Your task to perform on an android device: turn vacation reply on in the gmail app Image 0: 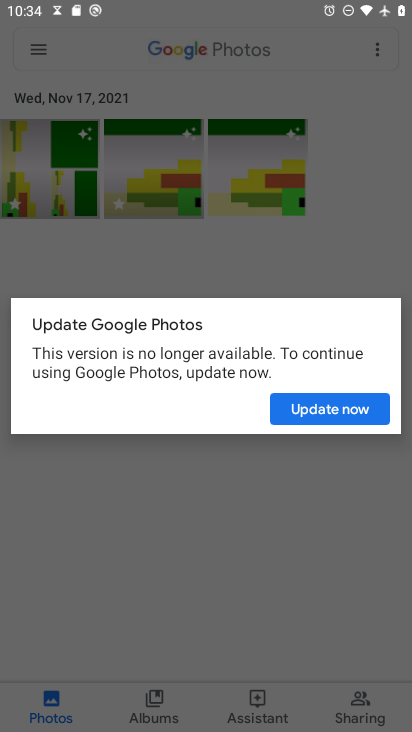
Step 0: press home button
Your task to perform on an android device: turn vacation reply on in the gmail app Image 1: 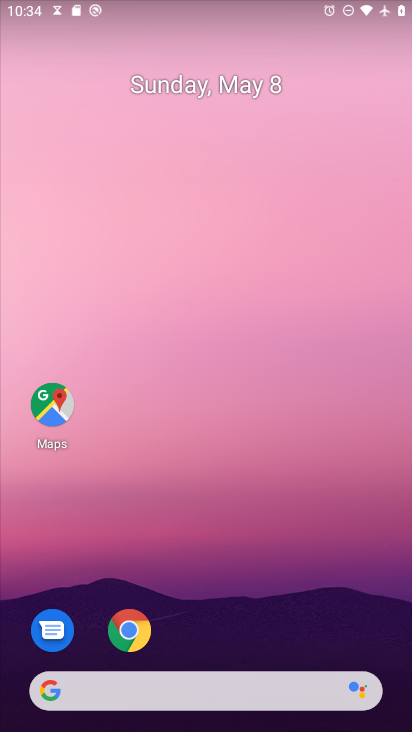
Step 1: drag from (183, 699) to (382, 146)
Your task to perform on an android device: turn vacation reply on in the gmail app Image 2: 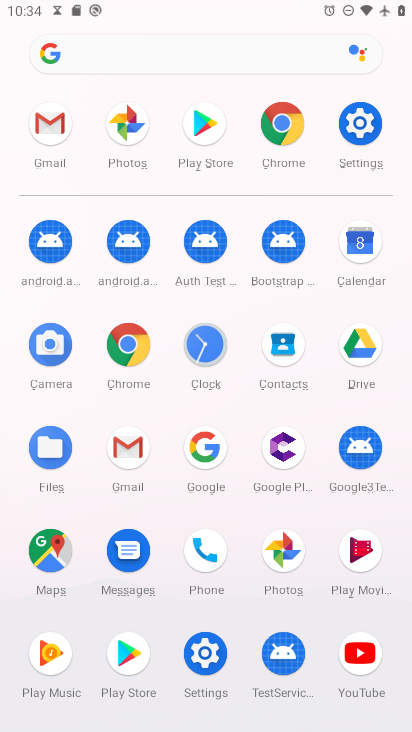
Step 2: click (140, 448)
Your task to perform on an android device: turn vacation reply on in the gmail app Image 3: 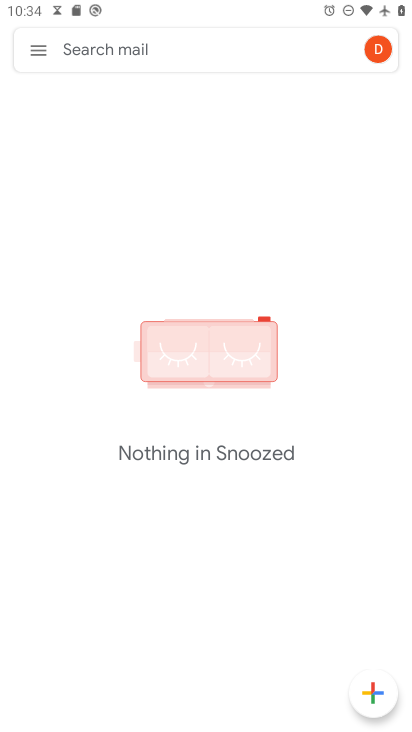
Step 3: click (45, 50)
Your task to perform on an android device: turn vacation reply on in the gmail app Image 4: 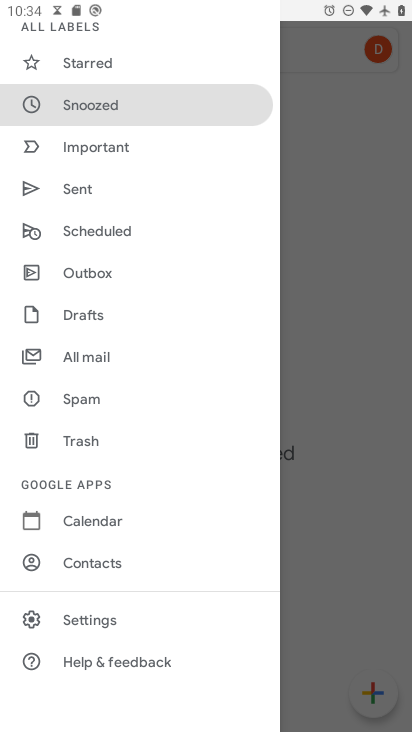
Step 4: click (110, 624)
Your task to perform on an android device: turn vacation reply on in the gmail app Image 5: 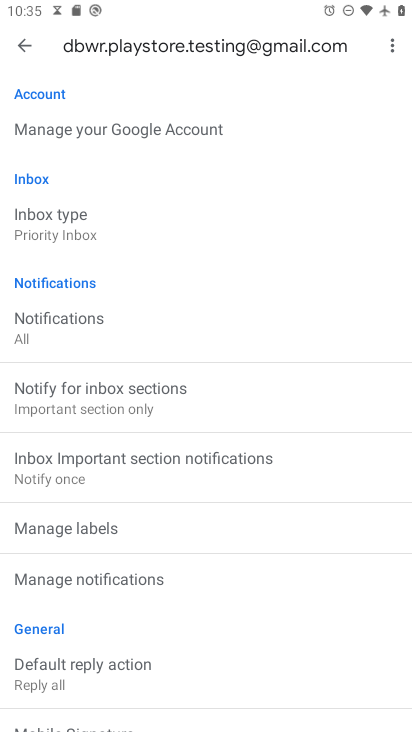
Step 5: drag from (187, 608) to (383, 97)
Your task to perform on an android device: turn vacation reply on in the gmail app Image 6: 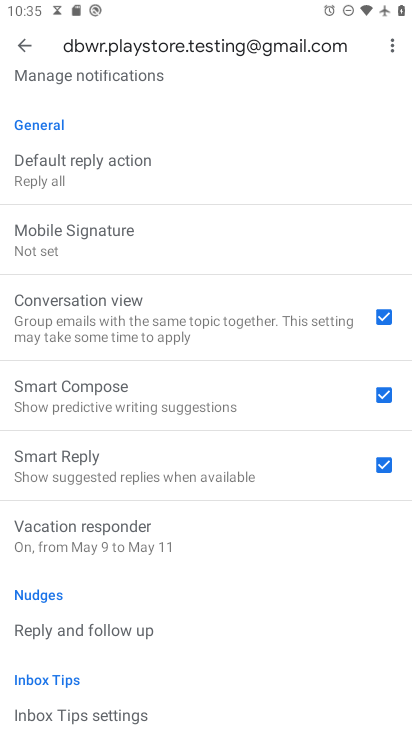
Step 6: click (187, 549)
Your task to perform on an android device: turn vacation reply on in the gmail app Image 7: 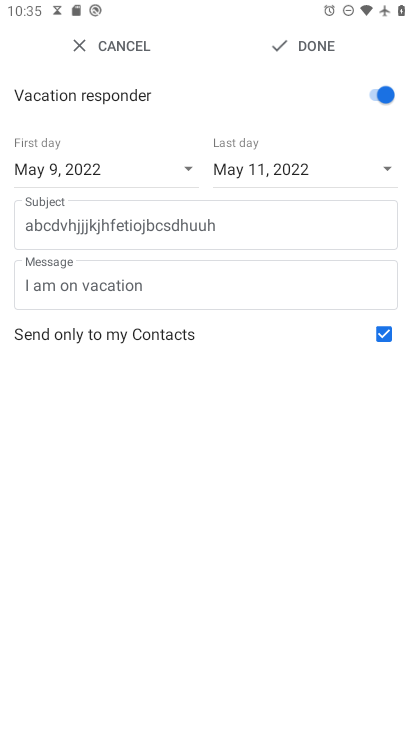
Step 7: task complete